Your task to perform on an android device: turn on showing notifications on the lock screen Image 0: 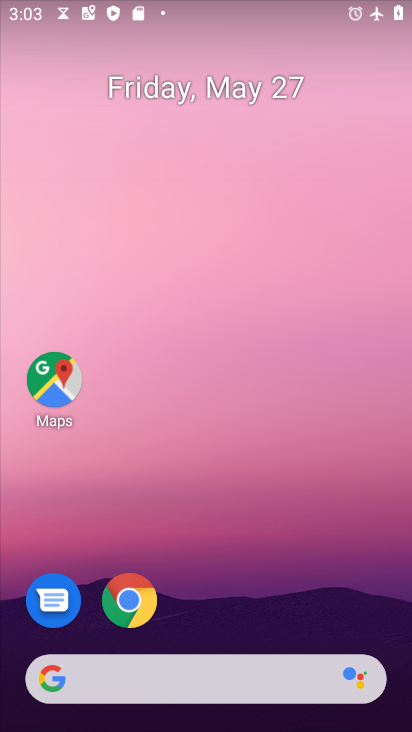
Step 0: drag from (265, 632) to (232, 34)
Your task to perform on an android device: turn on showing notifications on the lock screen Image 1: 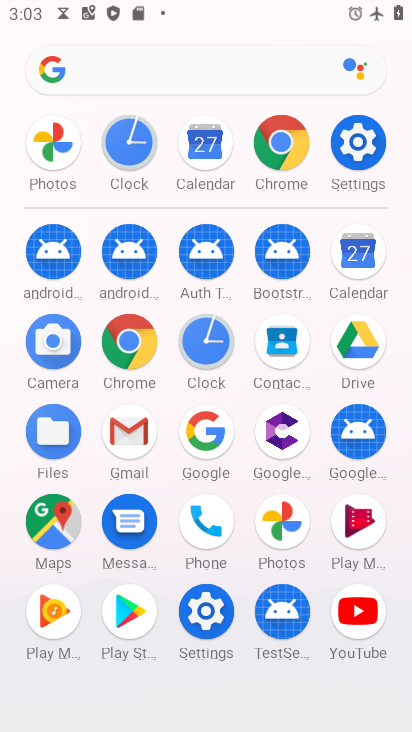
Step 1: drag from (15, 488) to (8, 270)
Your task to perform on an android device: turn on showing notifications on the lock screen Image 2: 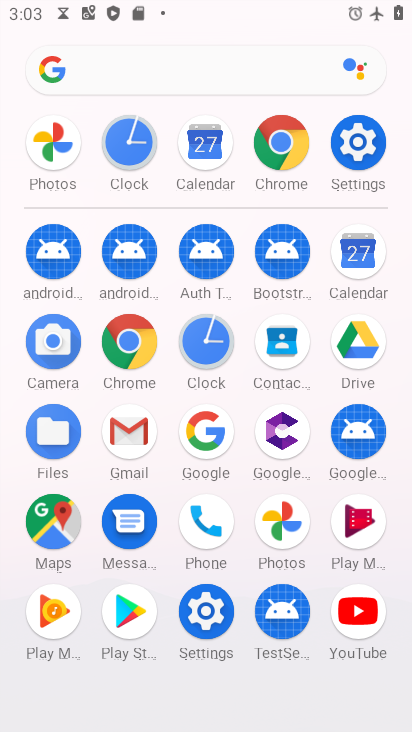
Step 2: click (206, 609)
Your task to perform on an android device: turn on showing notifications on the lock screen Image 3: 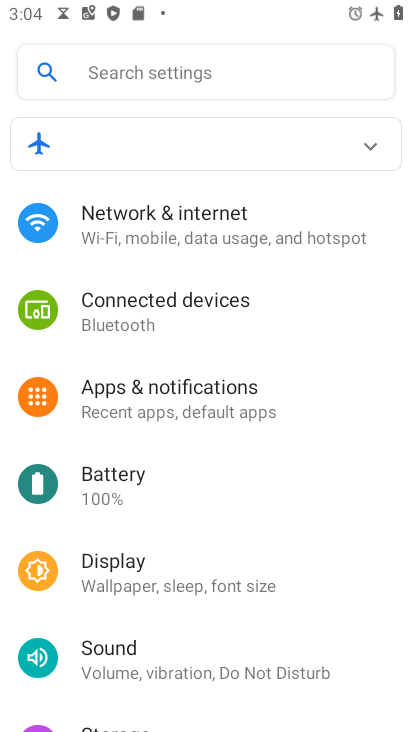
Step 3: drag from (272, 602) to (267, 220)
Your task to perform on an android device: turn on showing notifications on the lock screen Image 4: 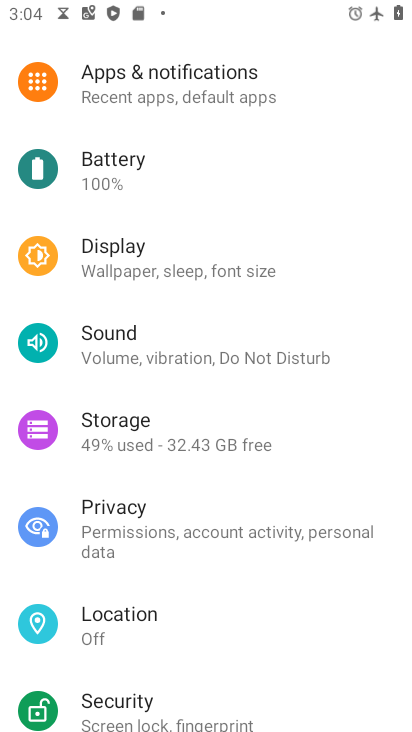
Step 4: click (207, 96)
Your task to perform on an android device: turn on showing notifications on the lock screen Image 5: 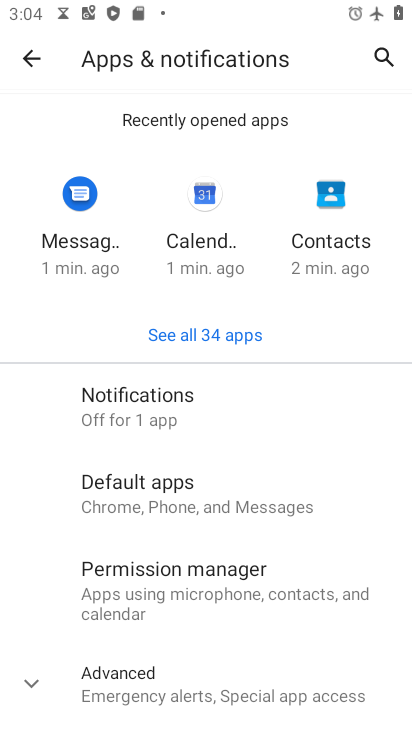
Step 5: click (26, 683)
Your task to perform on an android device: turn on showing notifications on the lock screen Image 6: 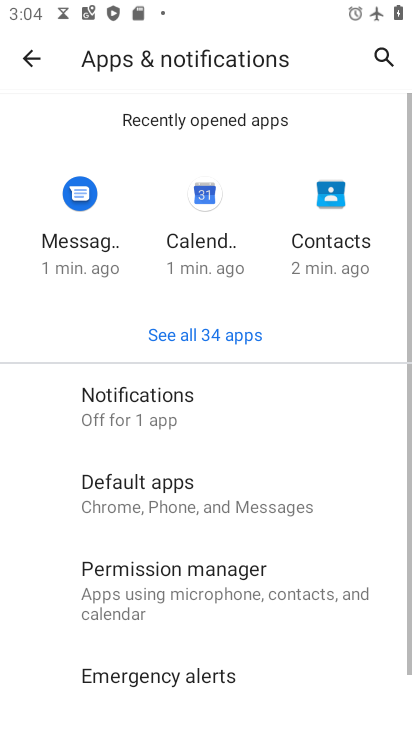
Step 6: drag from (315, 617) to (336, 195)
Your task to perform on an android device: turn on showing notifications on the lock screen Image 7: 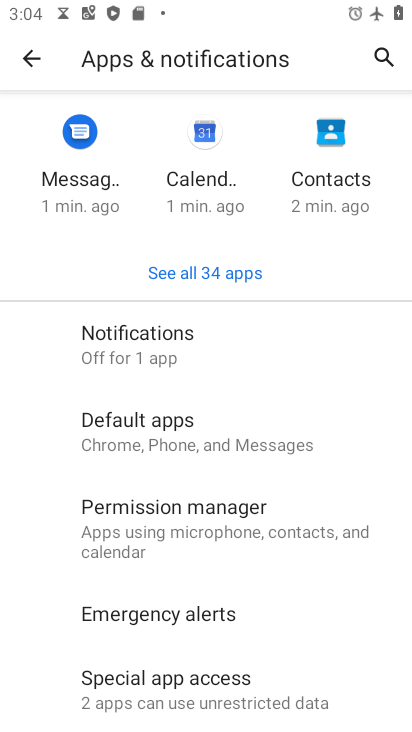
Step 7: click (171, 356)
Your task to perform on an android device: turn on showing notifications on the lock screen Image 8: 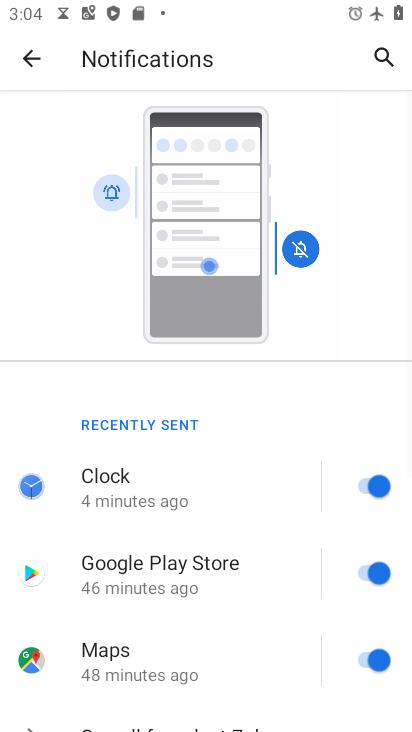
Step 8: drag from (196, 615) to (253, 150)
Your task to perform on an android device: turn on showing notifications on the lock screen Image 9: 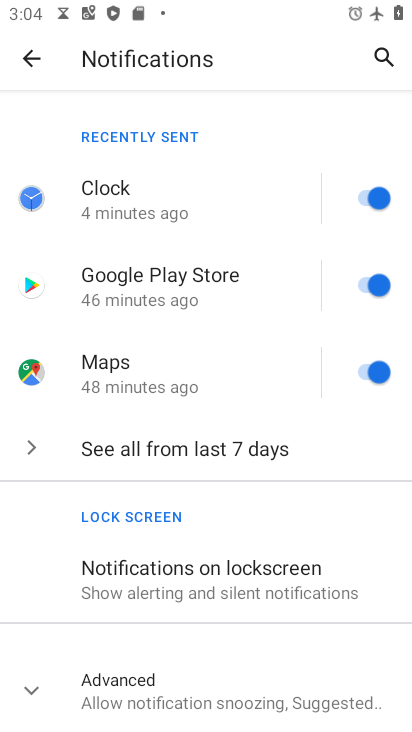
Step 9: drag from (240, 583) to (218, 255)
Your task to perform on an android device: turn on showing notifications on the lock screen Image 10: 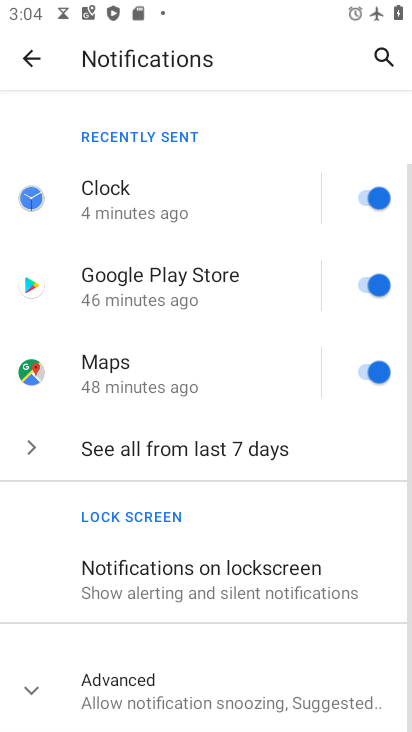
Step 10: click (60, 698)
Your task to perform on an android device: turn on showing notifications on the lock screen Image 11: 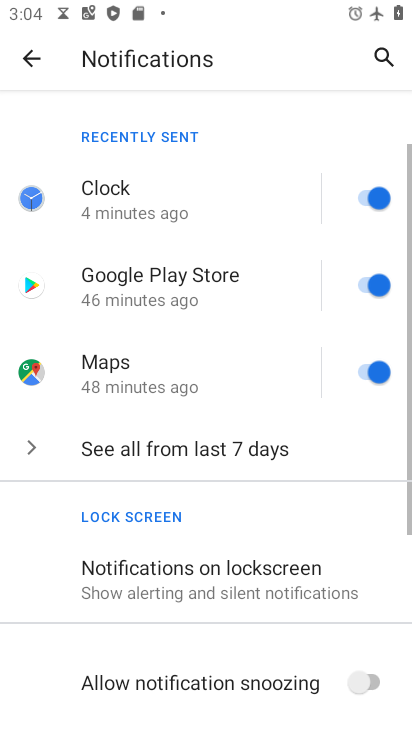
Step 11: drag from (266, 644) to (275, 175)
Your task to perform on an android device: turn on showing notifications on the lock screen Image 12: 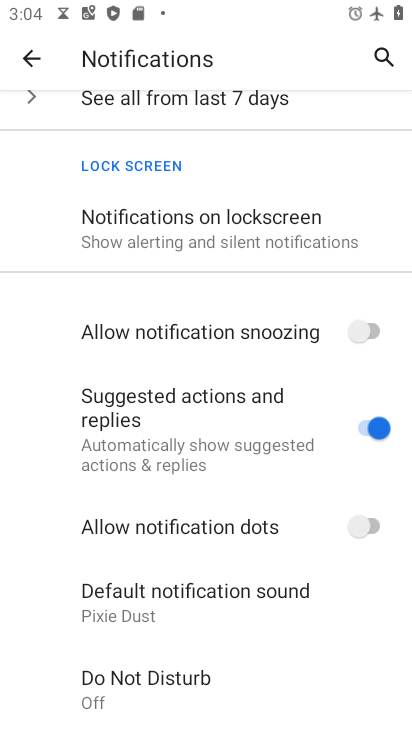
Step 12: drag from (270, 618) to (263, 206)
Your task to perform on an android device: turn on showing notifications on the lock screen Image 13: 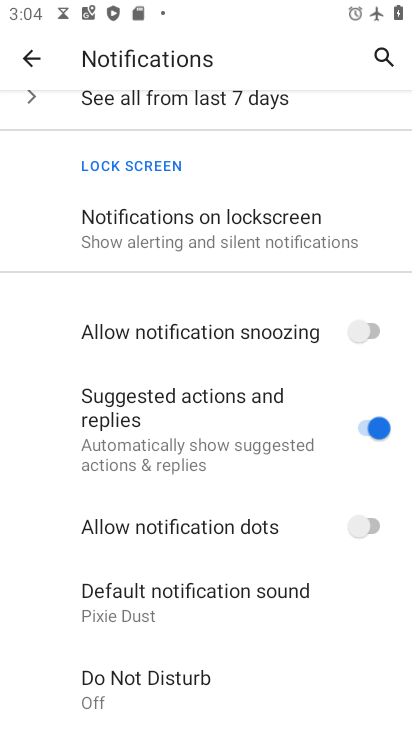
Step 13: click (380, 544)
Your task to perform on an android device: turn on showing notifications on the lock screen Image 14: 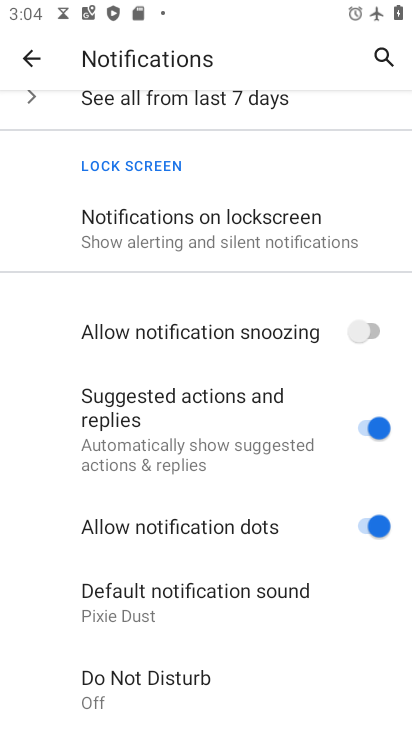
Step 14: click (350, 524)
Your task to perform on an android device: turn on showing notifications on the lock screen Image 15: 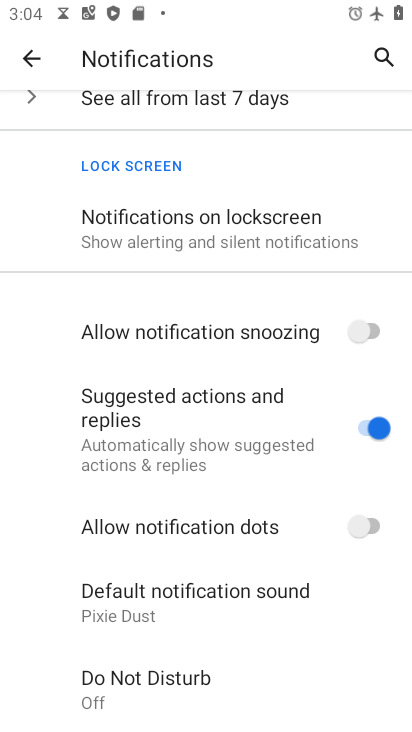
Step 15: click (259, 234)
Your task to perform on an android device: turn on showing notifications on the lock screen Image 16: 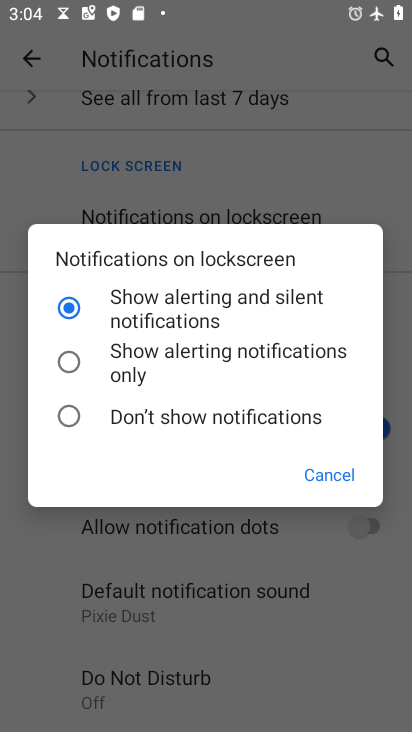
Step 16: click (233, 296)
Your task to perform on an android device: turn on showing notifications on the lock screen Image 17: 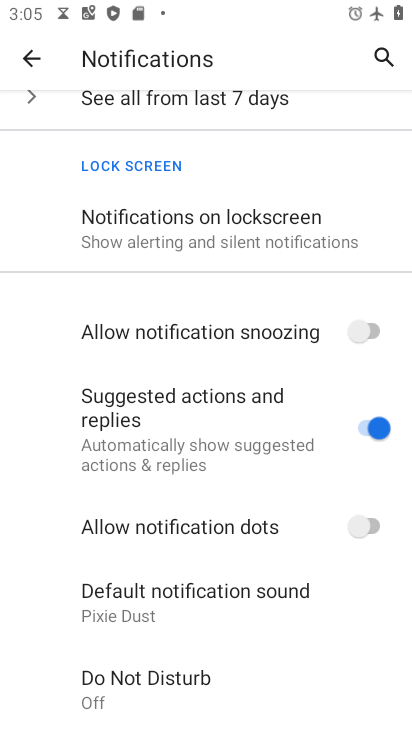
Step 17: task complete